Your task to perform on an android device: set default search engine in the chrome app Image 0: 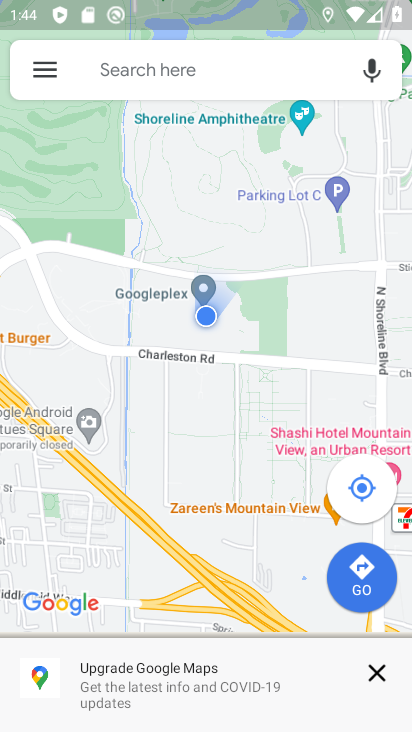
Step 0: press home button
Your task to perform on an android device: set default search engine in the chrome app Image 1: 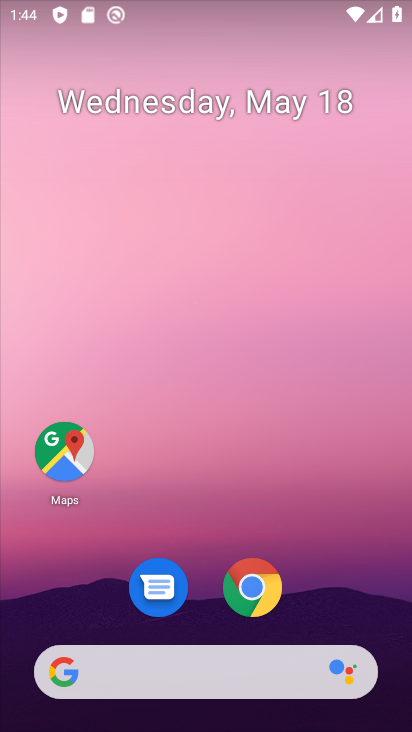
Step 1: click (248, 606)
Your task to perform on an android device: set default search engine in the chrome app Image 2: 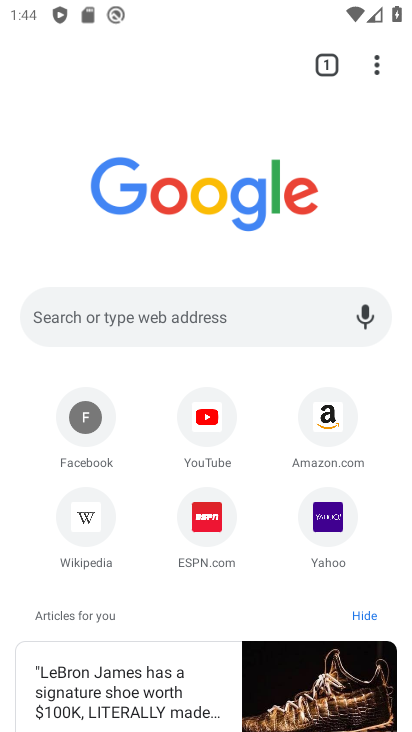
Step 2: click (376, 65)
Your task to perform on an android device: set default search engine in the chrome app Image 3: 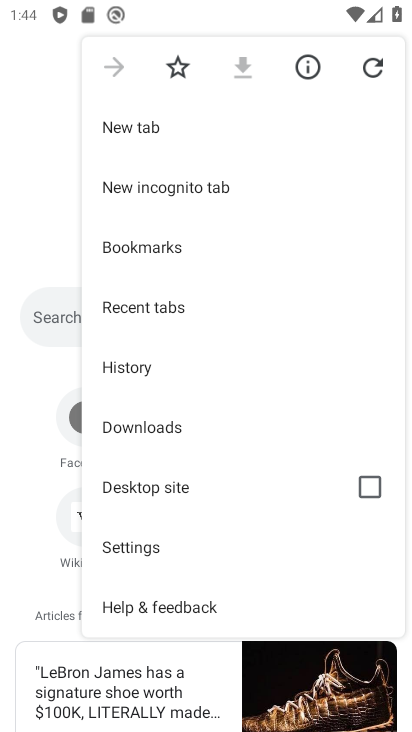
Step 3: click (146, 546)
Your task to perform on an android device: set default search engine in the chrome app Image 4: 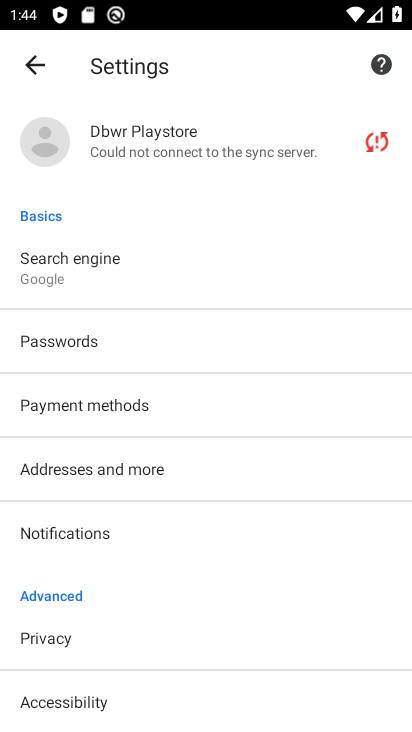
Step 4: click (66, 264)
Your task to perform on an android device: set default search engine in the chrome app Image 5: 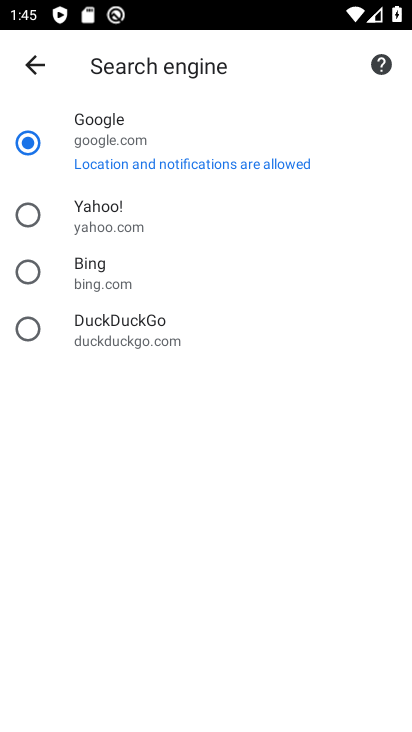
Step 5: click (20, 222)
Your task to perform on an android device: set default search engine in the chrome app Image 6: 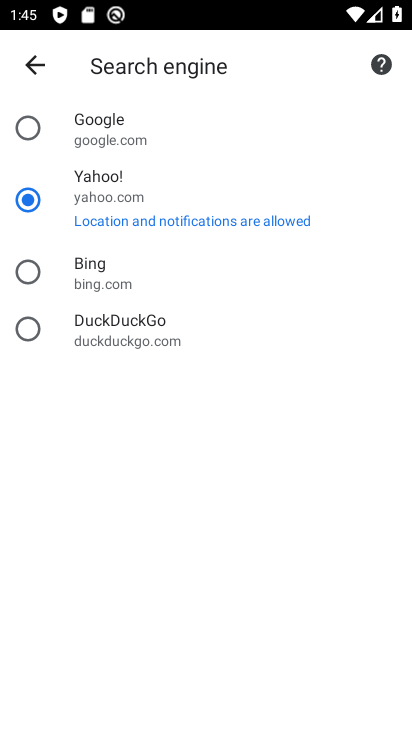
Step 6: task complete